Your task to perform on an android device: allow notifications from all sites in the chrome app Image 0: 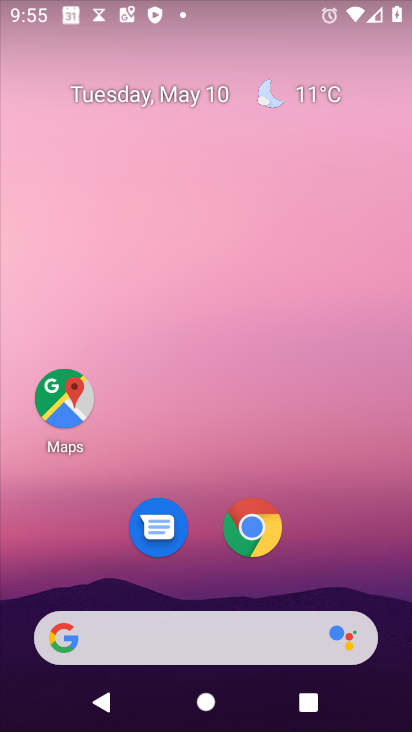
Step 0: click (267, 515)
Your task to perform on an android device: allow notifications from all sites in the chrome app Image 1: 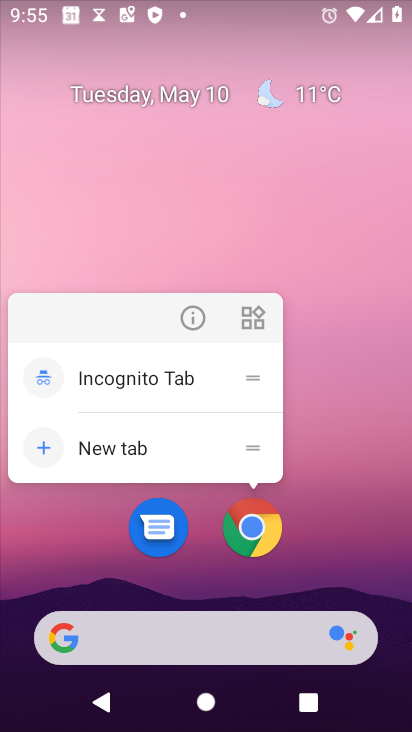
Step 1: click (199, 320)
Your task to perform on an android device: allow notifications from all sites in the chrome app Image 2: 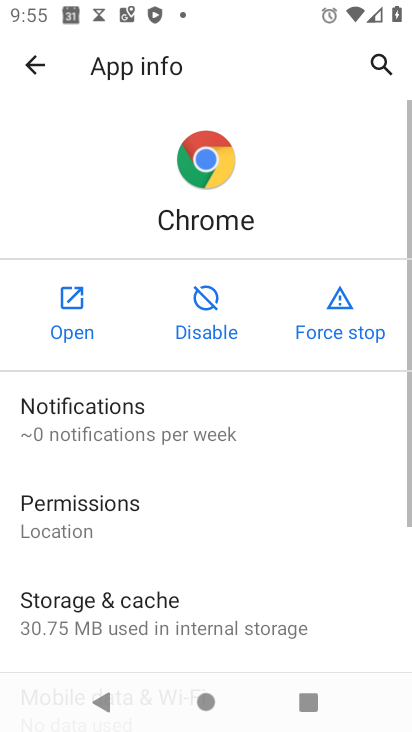
Step 2: click (135, 414)
Your task to perform on an android device: allow notifications from all sites in the chrome app Image 3: 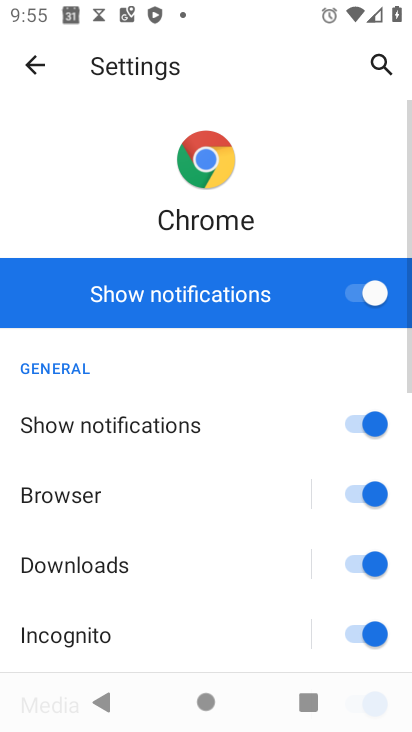
Step 3: task complete